Your task to perform on an android device: open app "LiveIn - Share Your Moment" (install if not already installed) Image 0: 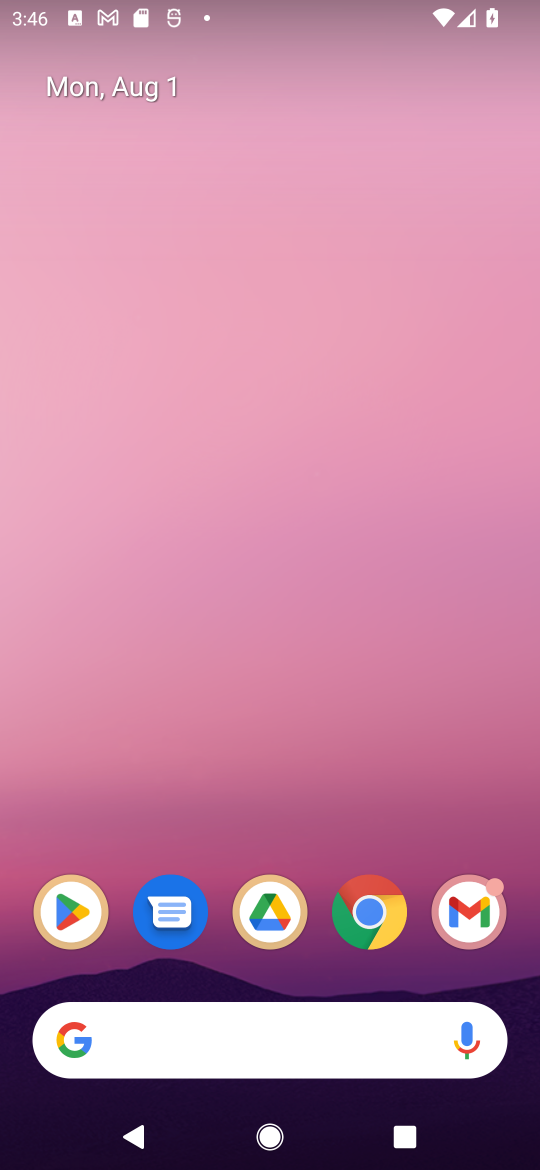
Step 0: click (78, 926)
Your task to perform on an android device: open app "LiveIn - Share Your Moment" (install if not already installed) Image 1: 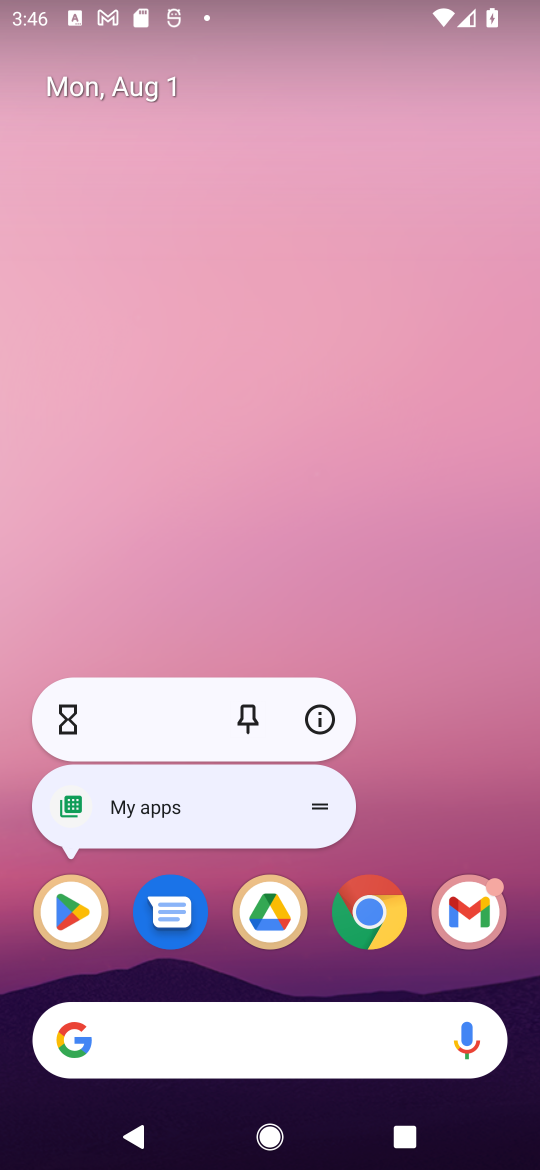
Step 1: click (78, 927)
Your task to perform on an android device: open app "LiveIn - Share Your Moment" (install if not already installed) Image 2: 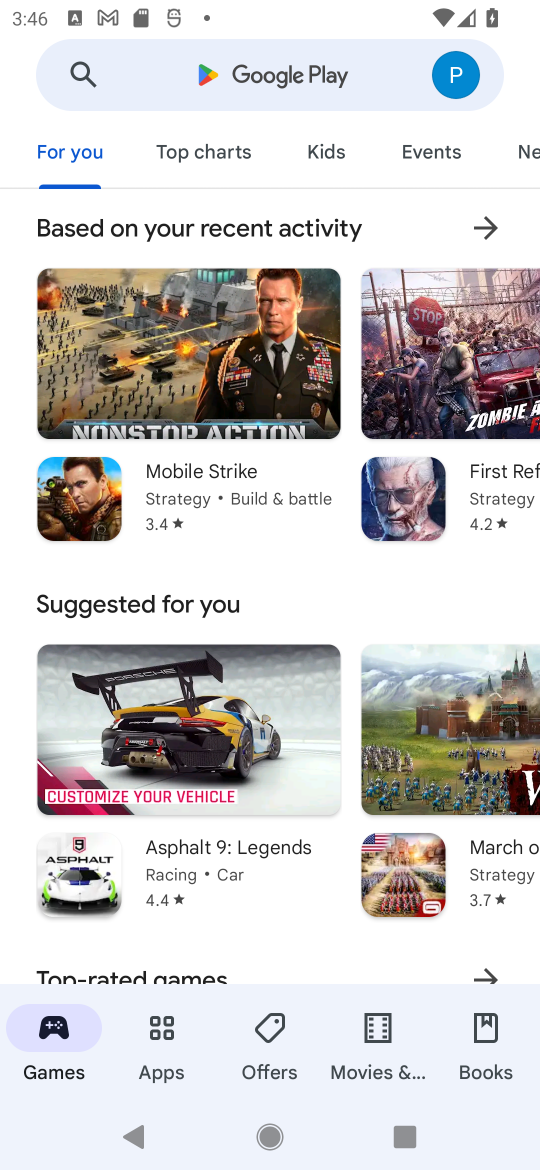
Step 2: click (166, 83)
Your task to perform on an android device: open app "LiveIn - Share Your Moment" (install if not already installed) Image 3: 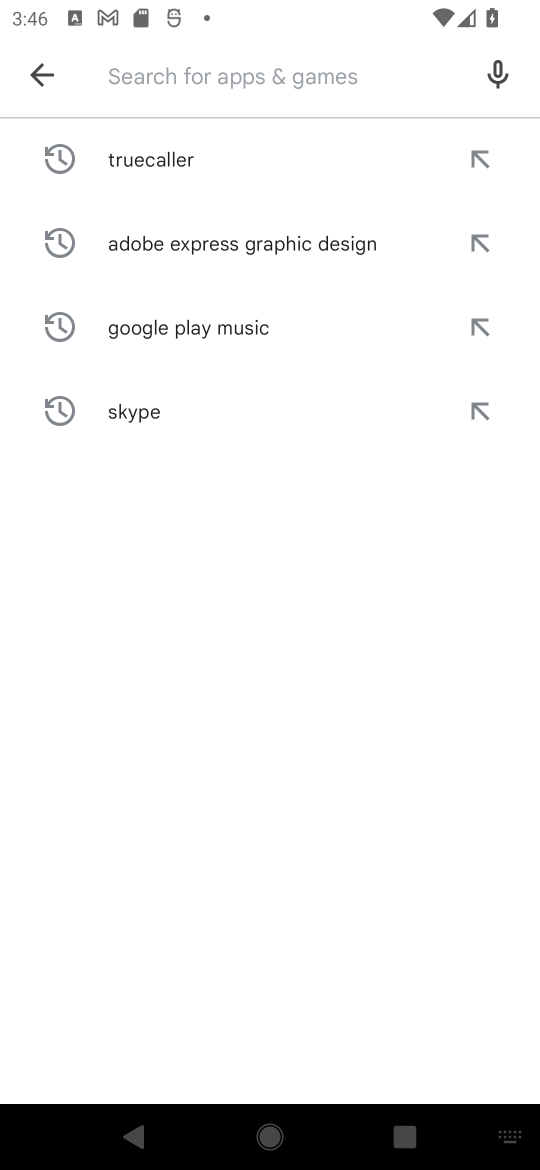
Step 3: type "LiveIn - Share Your Moment"
Your task to perform on an android device: open app "LiveIn - Share Your Moment" (install if not already installed) Image 4: 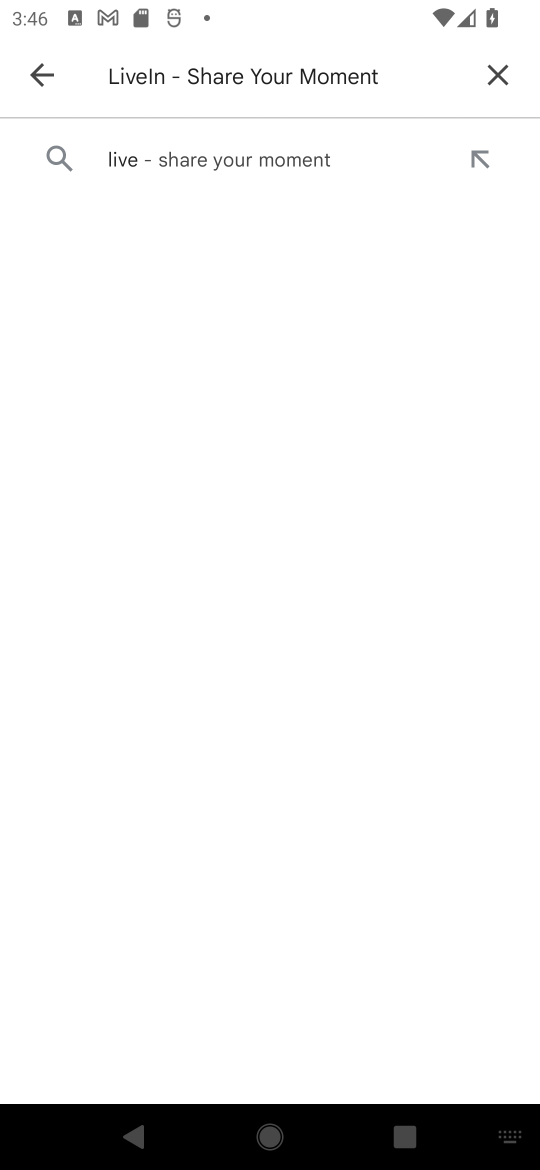
Step 4: click (185, 166)
Your task to perform on an android device: open app "LiveIn - Share Your Moment" (install if not already installed) Image 5: 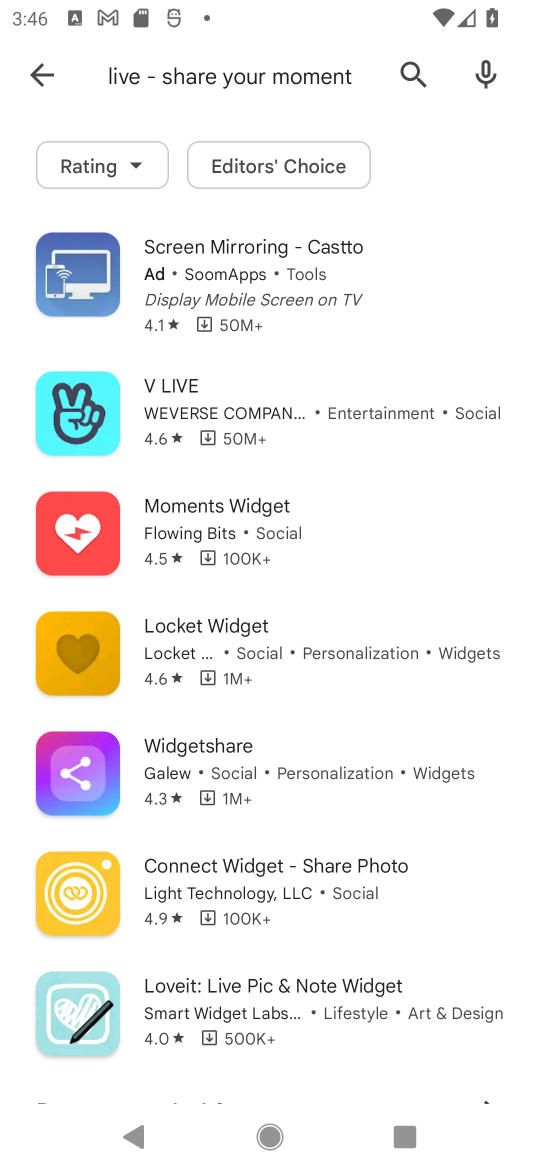
Step 5: task complete